Your task to perform on an android device: clear all cookies in the chrome app Image 0: 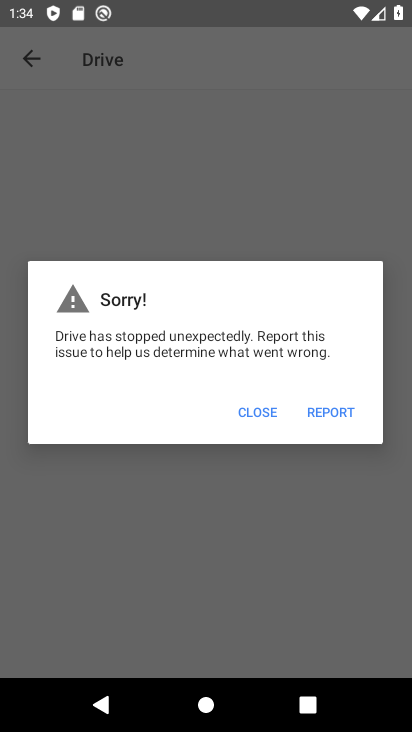
Step 0: press home button
Your task to perform on an android device: clear all cookies in the chrome app Image 1: 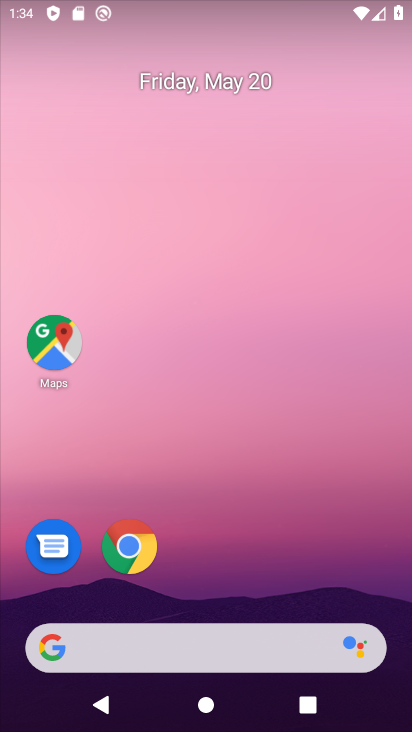
Step 1: click (147, 563)
Your task to perform on an android device: clear all cookies in the chrome app Image 2: 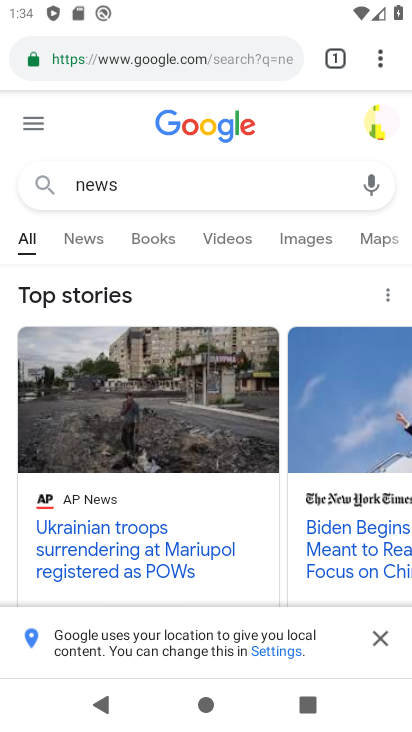
Step 2: click (386, 54)
Your task to perform on an android device: clear all cookies in the chrome app Image 3: 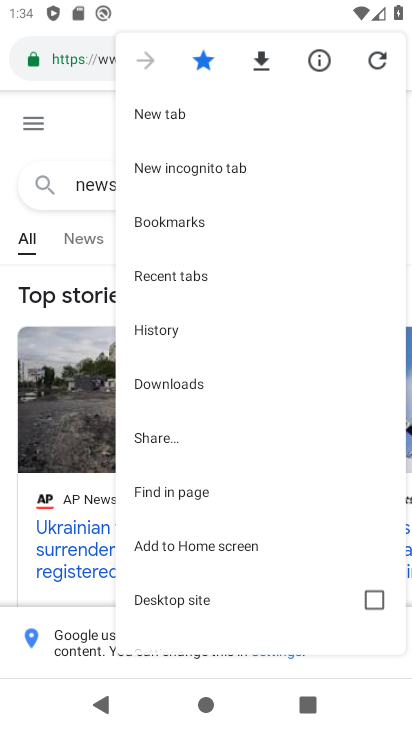
Step 3: click (245, 331)
Your task to perform on an android device: clear all cookies in the chrome app Image 4: 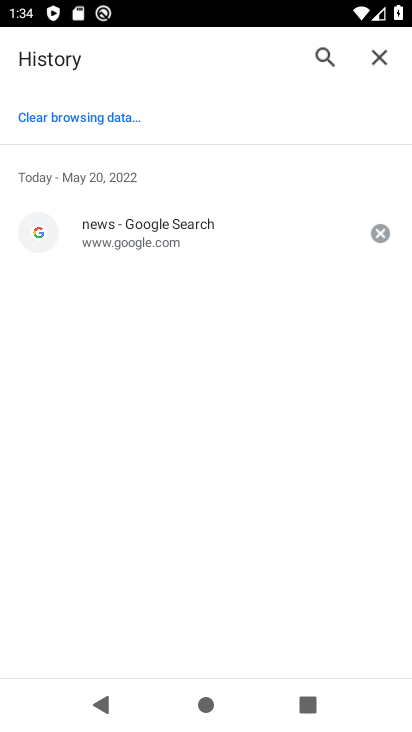
Step 4: click (128, 121)
Your task to perform on an android device: clear all cookies in the chrome app Image 5: 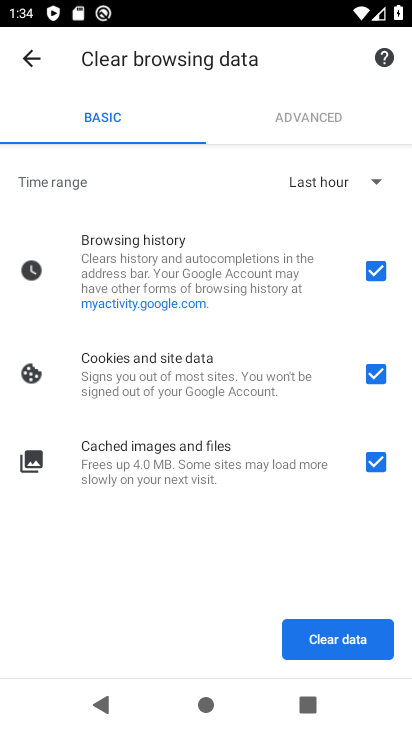
Step 5: click (383, 469)
Your task to perform on an android device: clear all cookies in the chrome app Image 6: 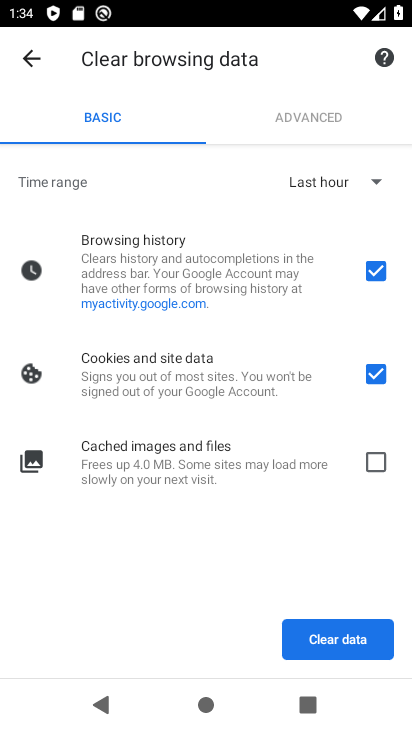
Step 6: click (377, 267)
Your task to perform on an android device: clear all cookies in the chrome app Image 7: 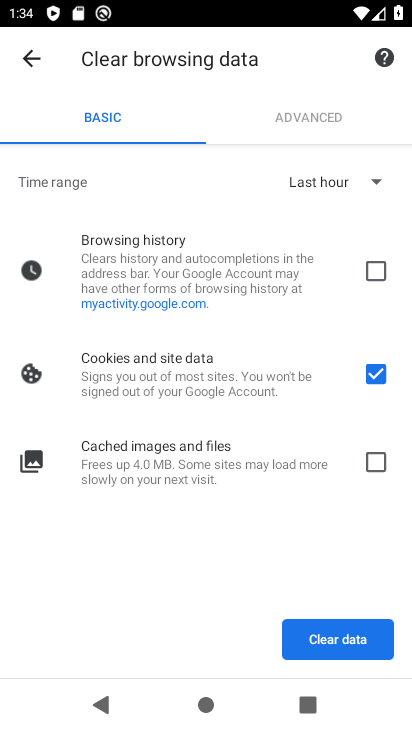
Step 7: click (329, 632)
Your task to perform on an android device: clear all cookies in the chrome app Image 8: 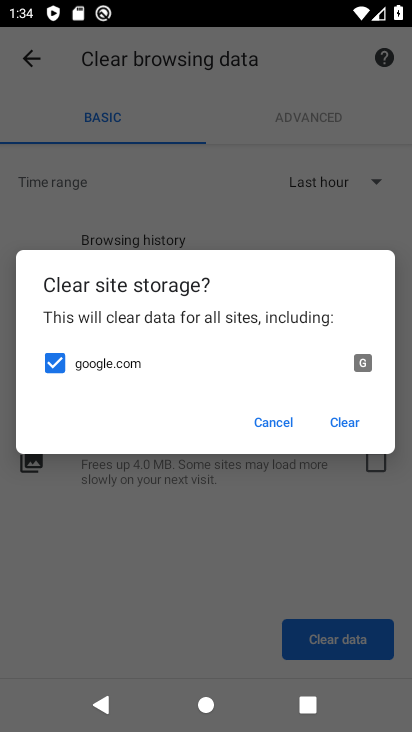
Step 8: click (345, 423)
Your task to perform on an android device: clear all cookies in the chrome app Image 9: 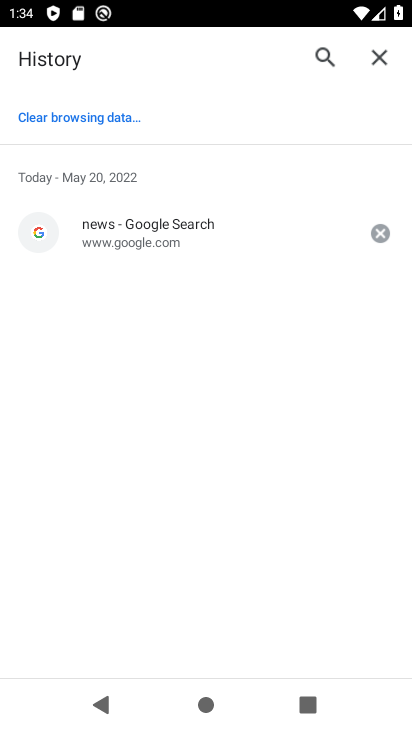
Step 9: task complete